Your task to perform on an android device: visit the assistant section in the google photos Image 0: 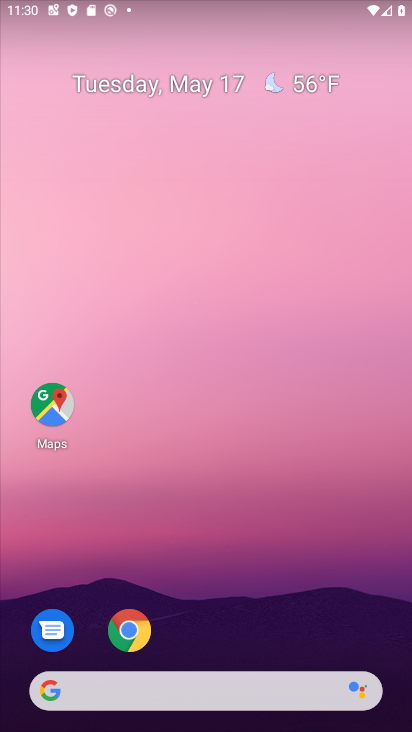
Step 0: drag from (279, 607) to (282, 227)
Your task to perform on an android device: visit the assistant section in the google photos Image 1: 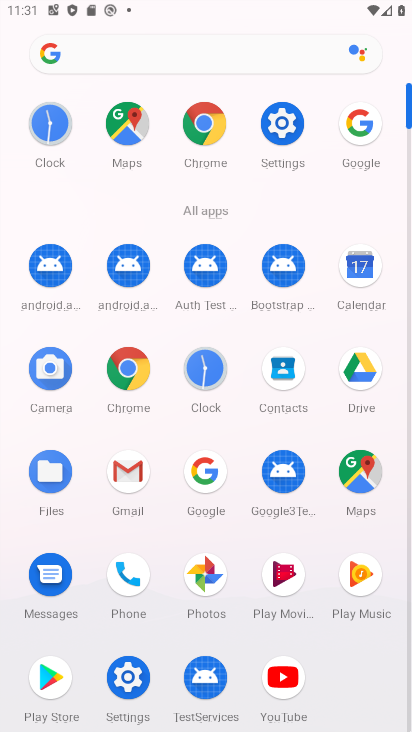
Step 1: click (217, 592)
Your task to perform on an android device: visit the assistant section in the google photos Image 2: 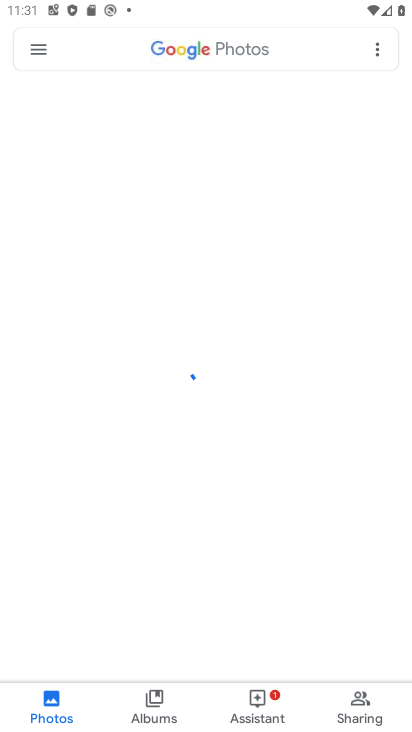
Step 2: click (265, 703)
Your task to perform on an android device: visit the assistant section in the google photos Image 3: 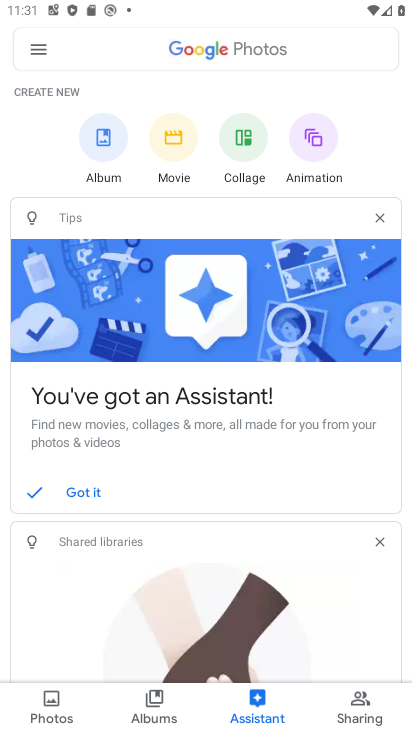
Step 3: task complete